Your task to perform on an android device: When is my next meeting? Image 0: 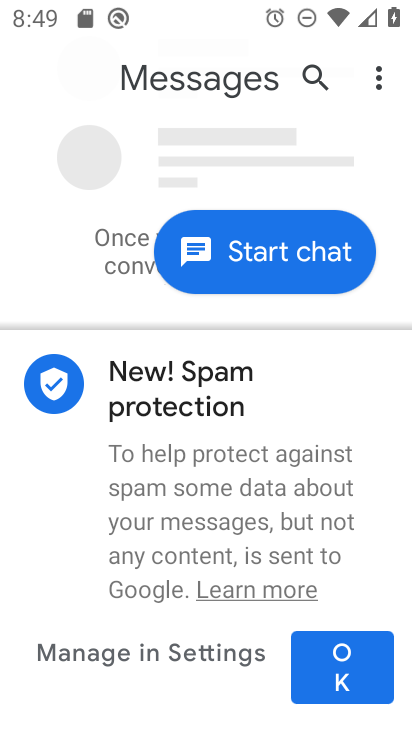
Step 0: press home button
Your task to perform on an android device: When is my next meeting? Image 1: 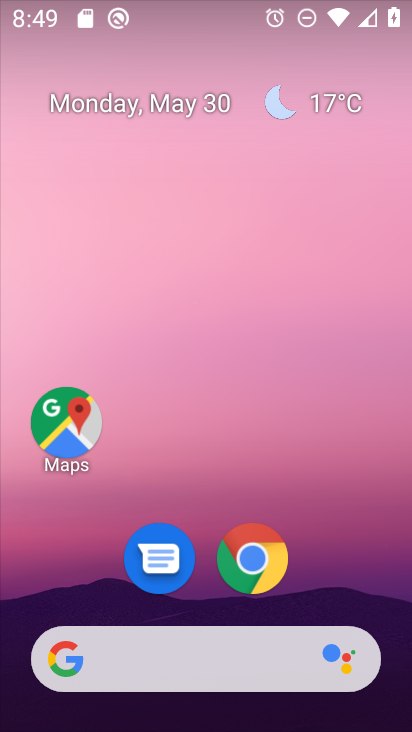
Step 1: drag from (338, 549) to (192, 151)
Your task to perform on an android device: When is my next meeting? Image 2: 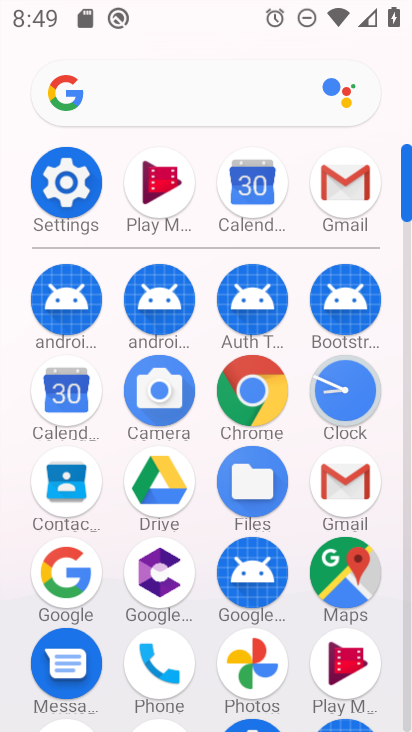
Step 2: click (63, 401)
Your task to perform on an android device: When is my next meeting? Image 3: 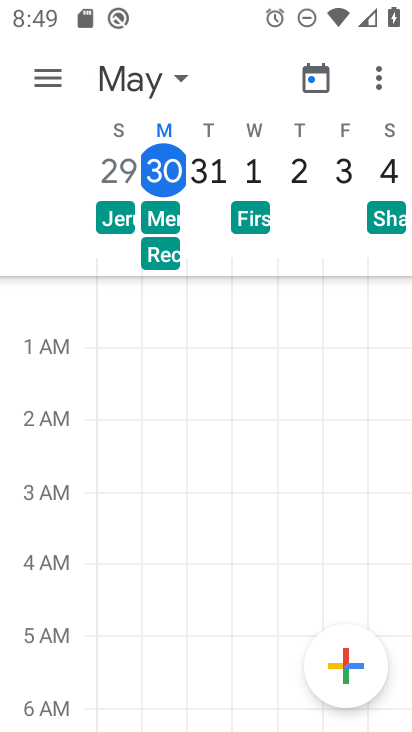
Step 3: task complete